Your task to perform on an android device: Open Yahoo.com Image 0: 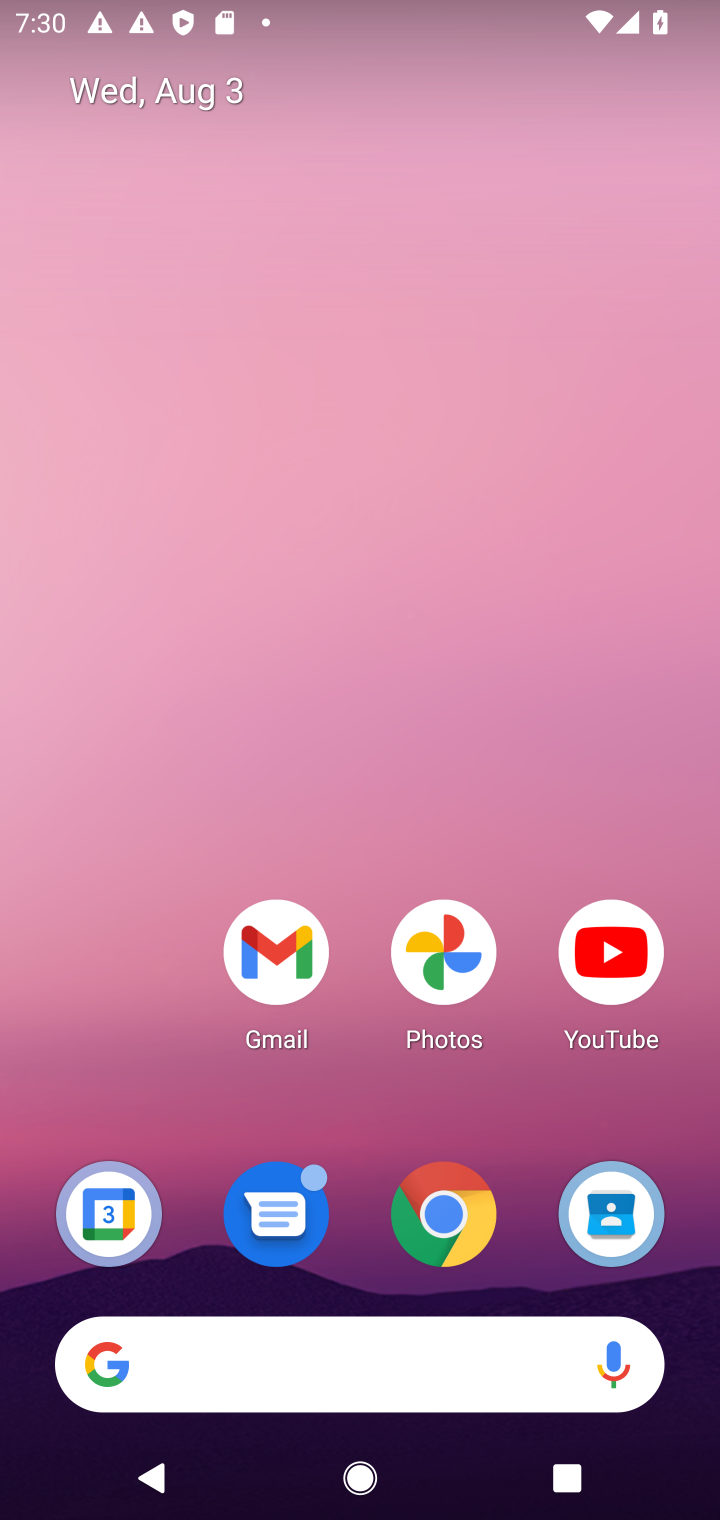
Step 0: click (466, 1211)
Your task to perform on an android device: Open Yahoo.com Image 1: 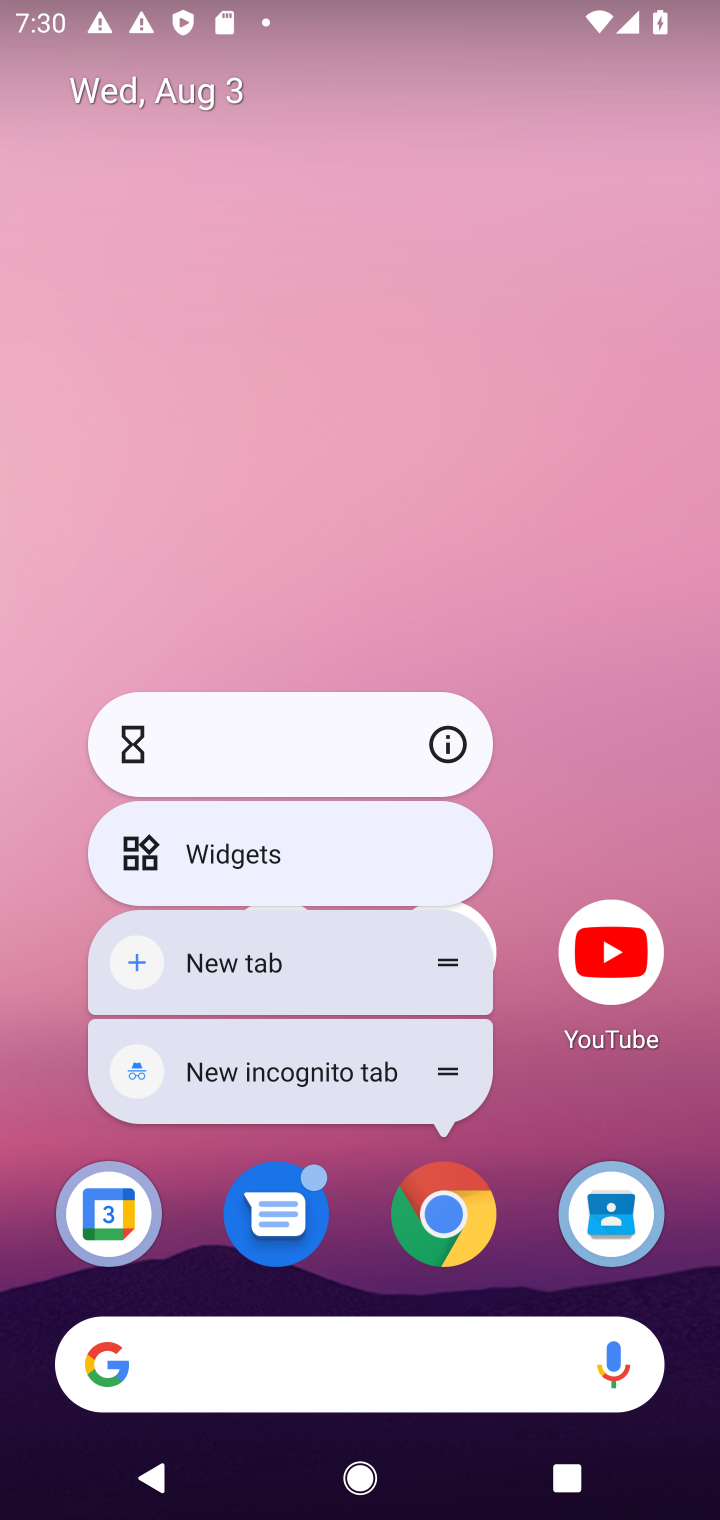
Step 1: click (464, 1224)
Your task to perform on an android device: Open Yahoo.com Image 2: 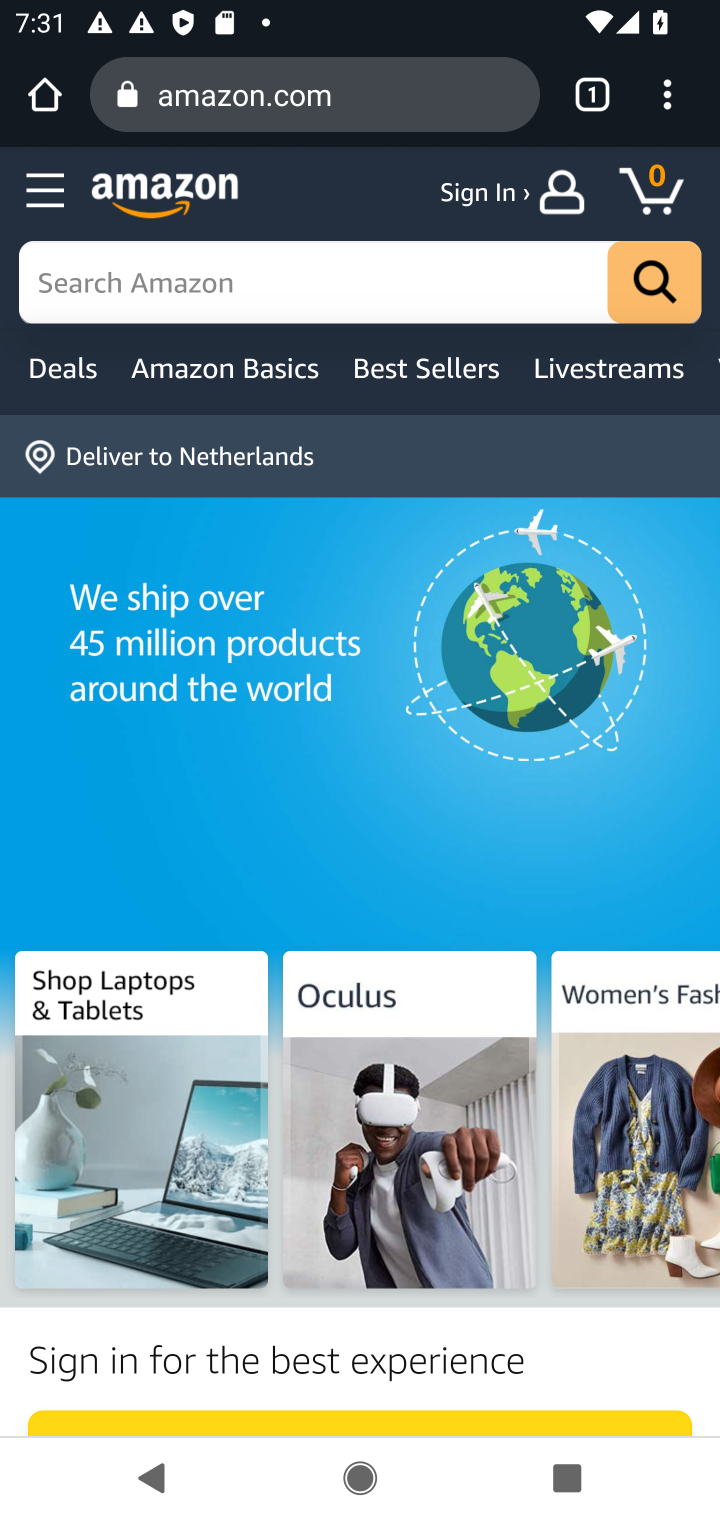
Step 2: click (611, 95)
Your task to perform on an android device: Open Yahoo.com Image 3: 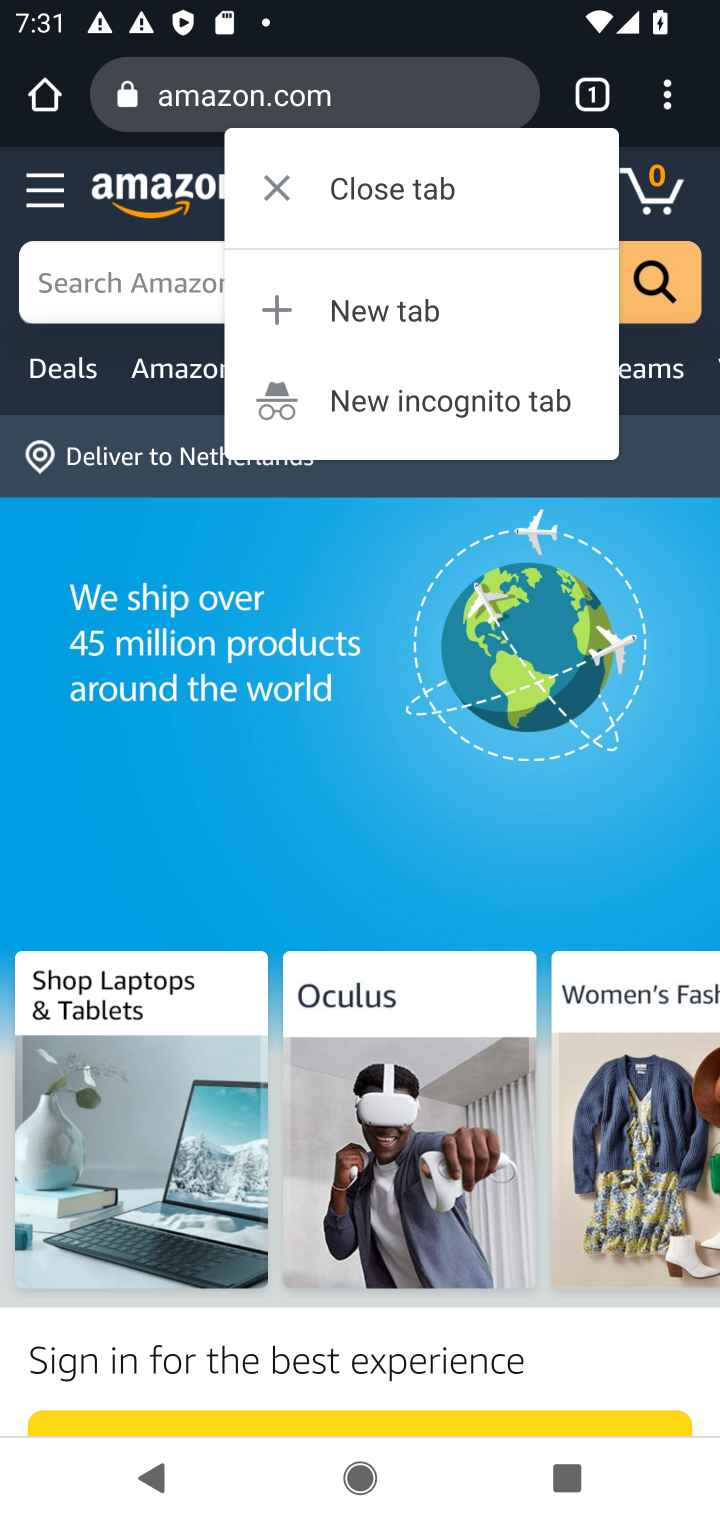
Step 3: click (239, 191)
Your task to perform on an android device: Open Yahoo.com Image 4: 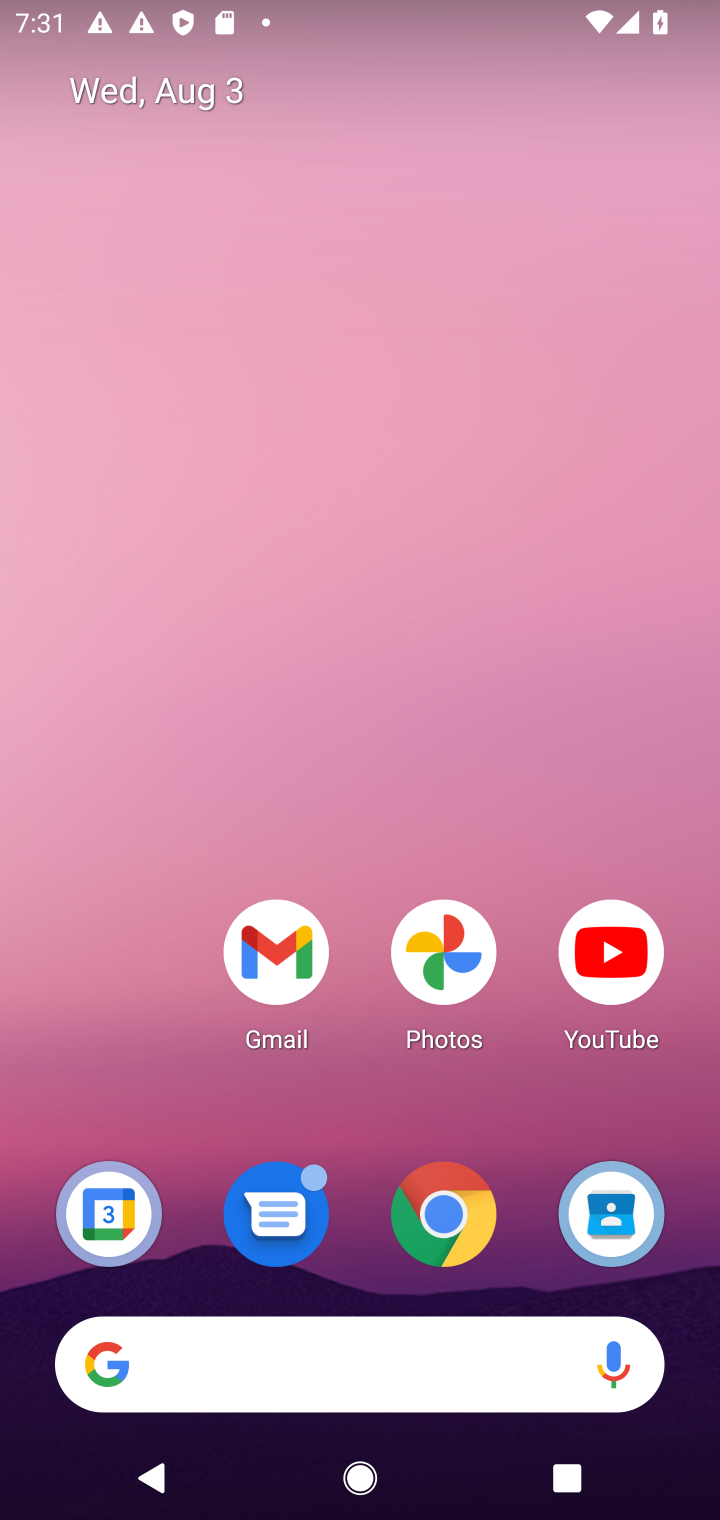
Step 4: click (453, 1214)
Your task to perform on an android device: Open Yahoo.com Image 5: 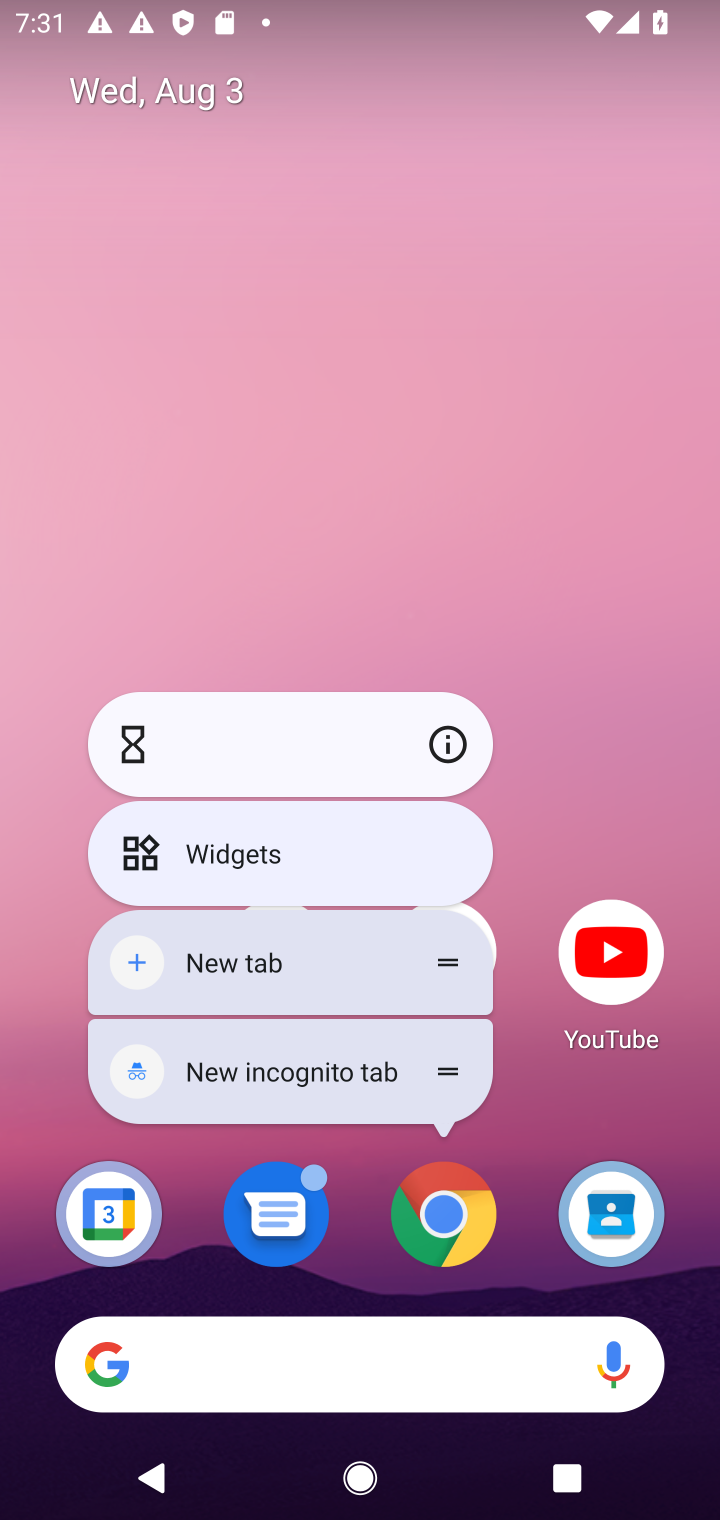
Step 5: click (453, 1216)
Your task to perform on an android device: Open Yahoo.com Image 6: 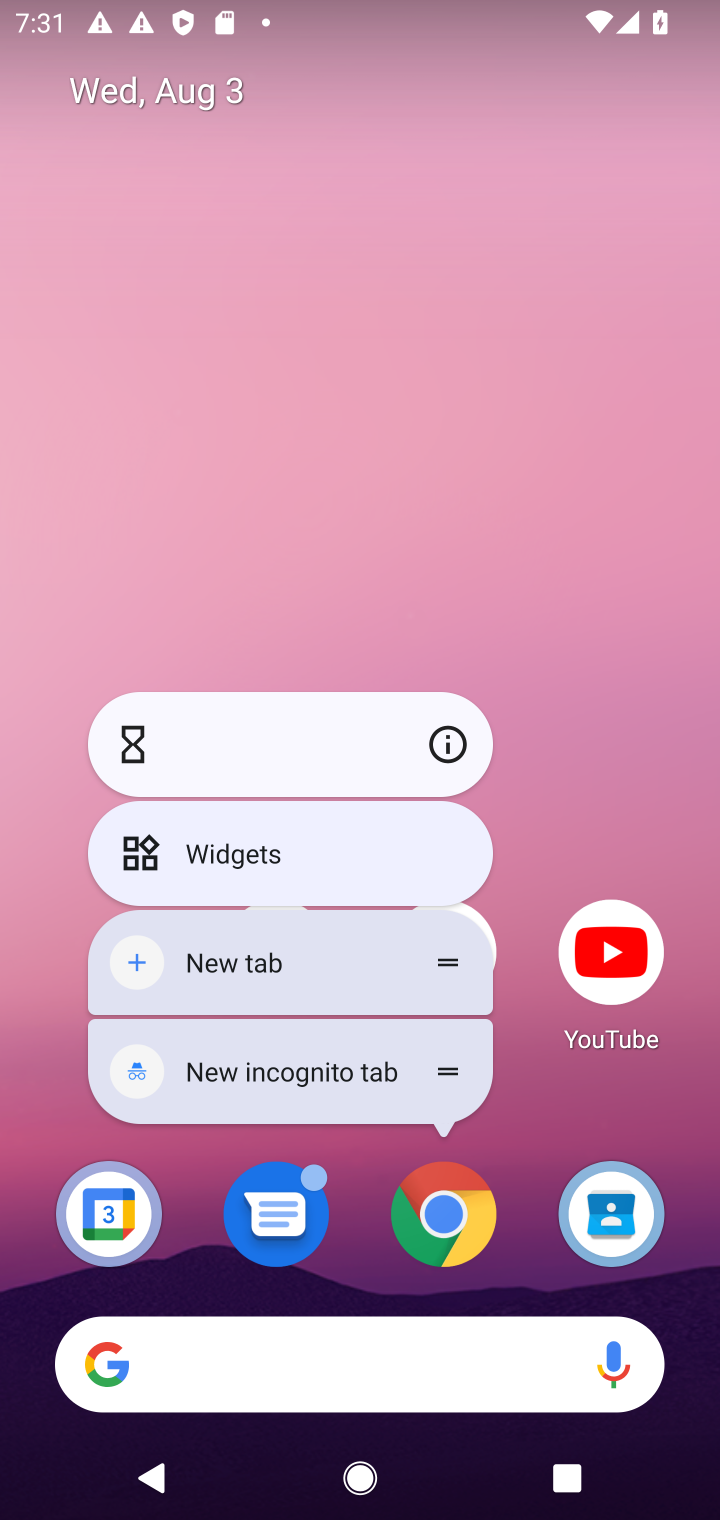
Step 6: click (453, 1216)
Your task to perform on an android device: Open Yahoo.com Image 7: 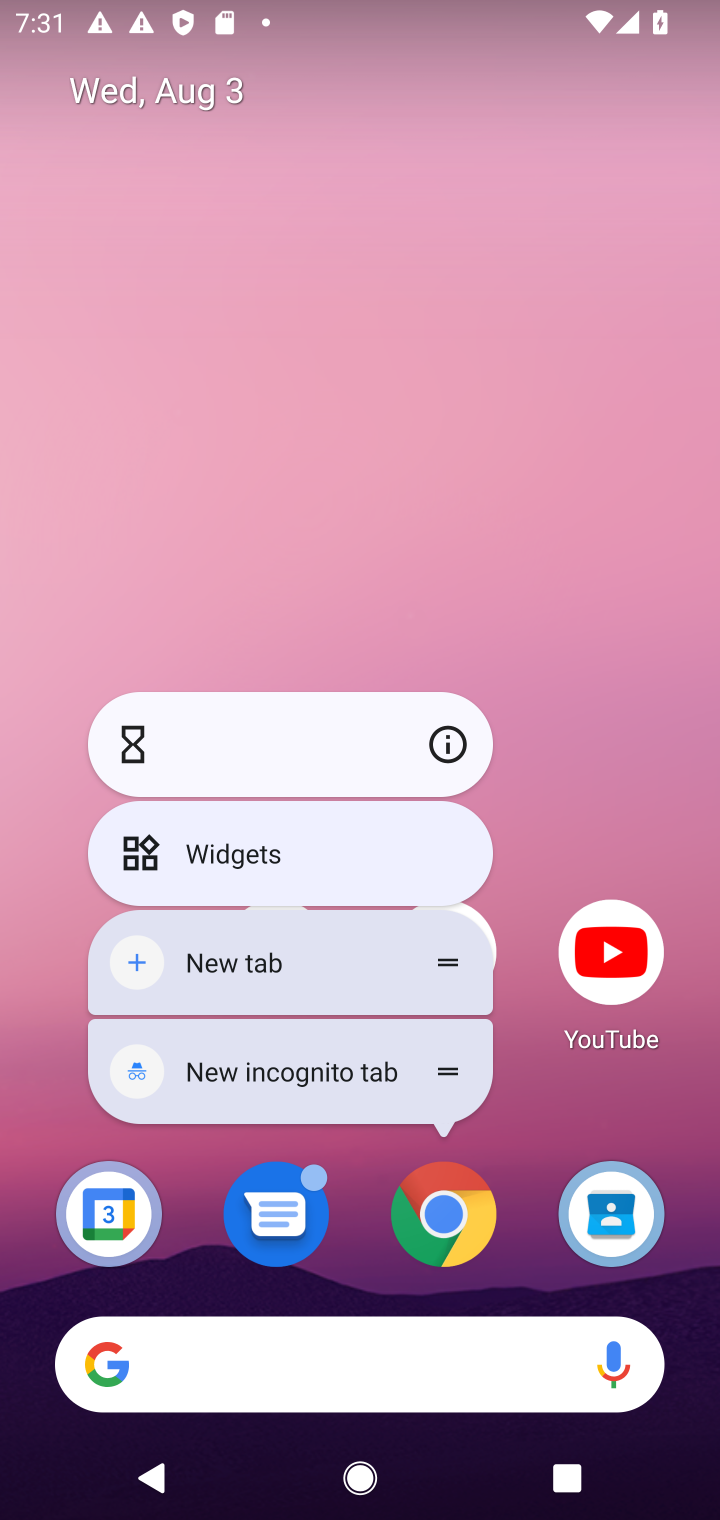
Step 7: click (436, 1223)
Your task to perform on an android device: Open Yahoo.com Image 8: 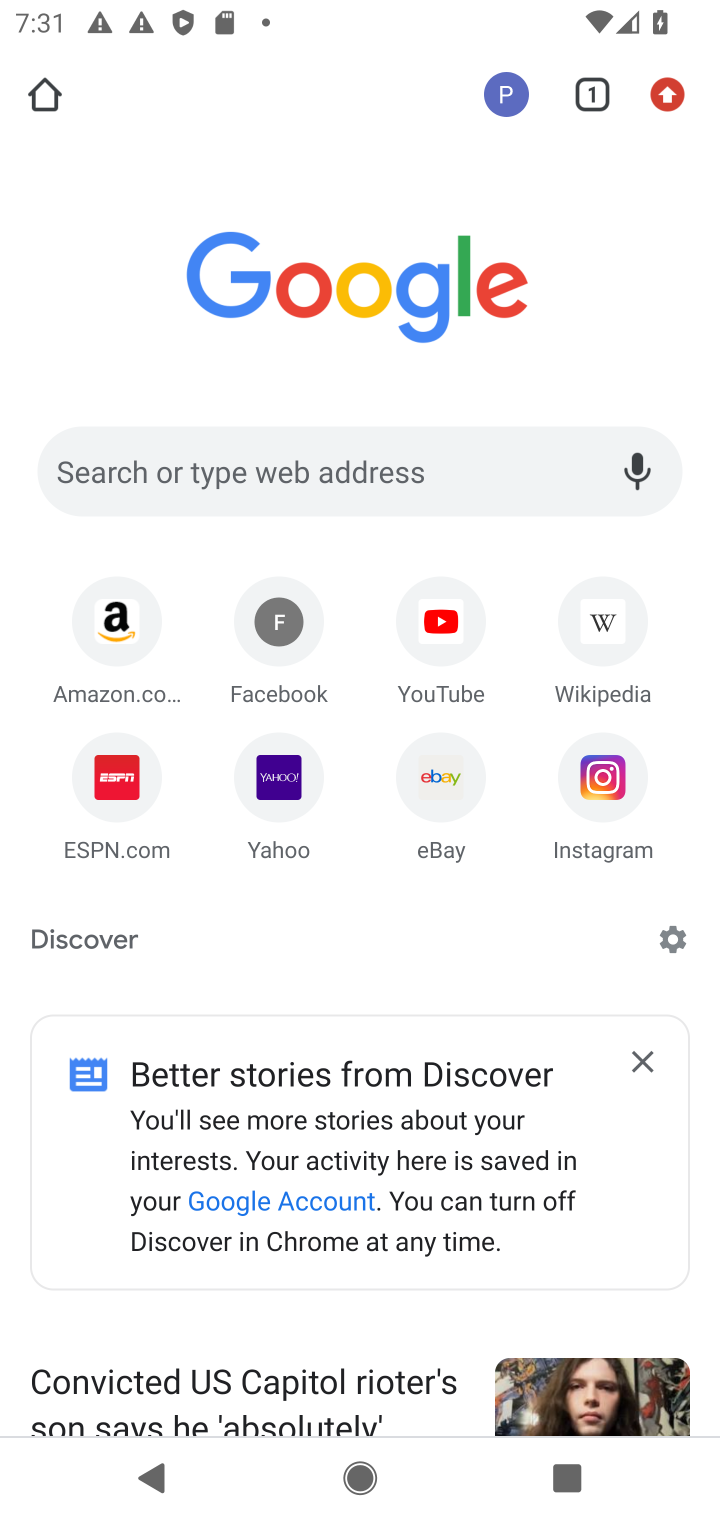
Step 8: click (292, 772)
Your task to perform on an android device: Open Yahoo.com Image 9: 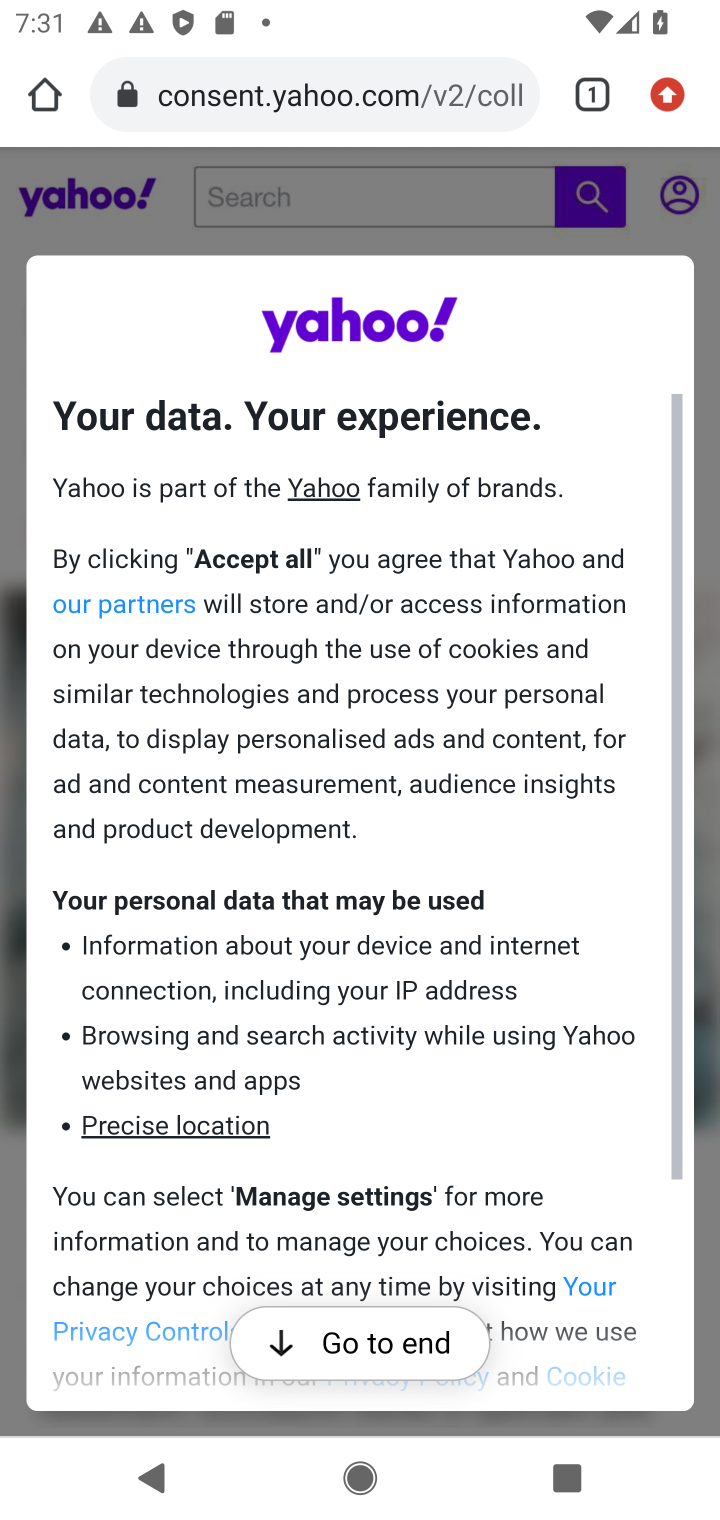
Step 9: task complete